Your task to perform on an android device: clear history in the chrome app Image 0: 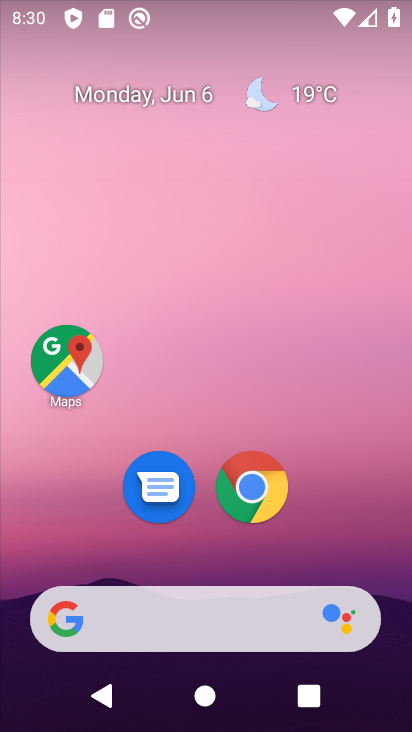
Step 0: click (248, 485)
Your task to perform on an android device: clear history in the chrome app Image 1: 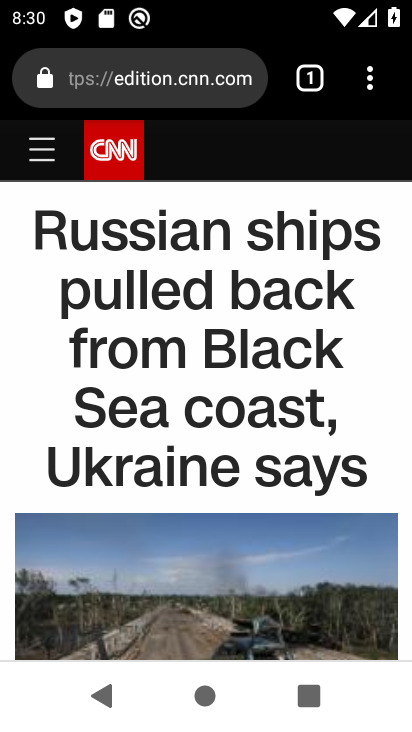
Step 1: click (365, 75)
Your task to perform on an android device: clear history in the chrome app Image 2: 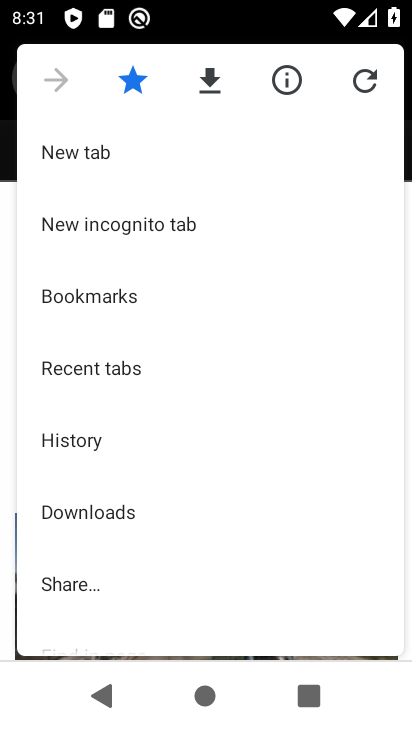
Step 2: click (97, 439)
Your task to perform on an android device: clear history in the chrome app Image 3: 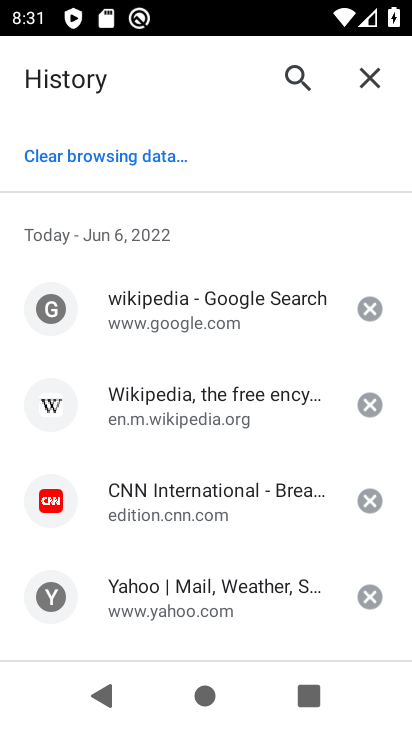
Step 3: click (111, 142)
Your task to perform on an android device: clear history in the chrome app Image 4: 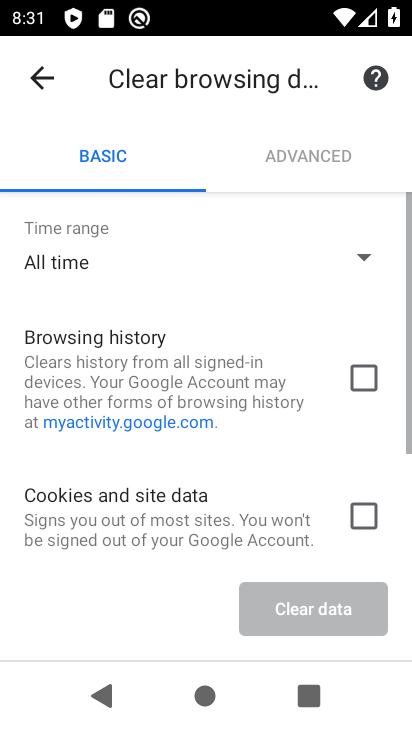
Step 4: click (358, 373)
Your task to perform on an android device: clear history in the chrome app Image 5: 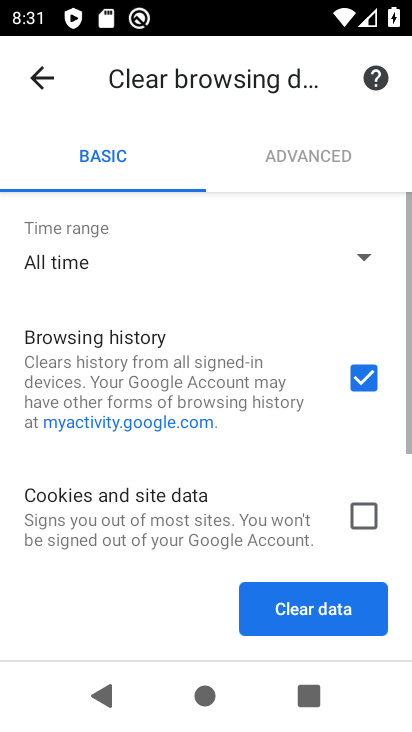
Step 5: click (363, 512)
Your task to perform on an android device: clear history in the chrome app Image 6: 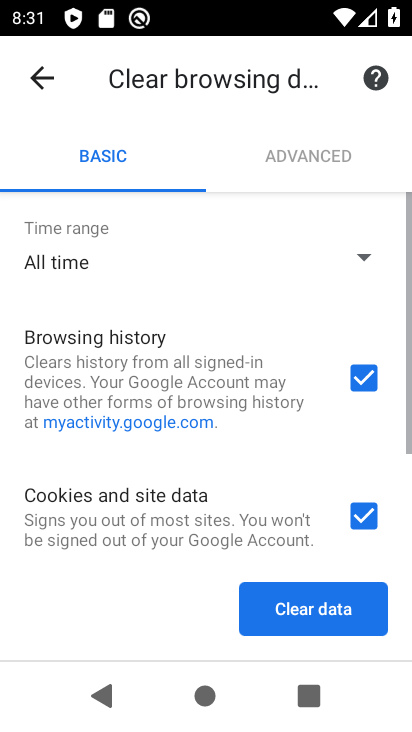
Step 6: drag from (287, 518) to (297, 145)
Your task to perform on an android device: clear history in the chrome app Image 7: 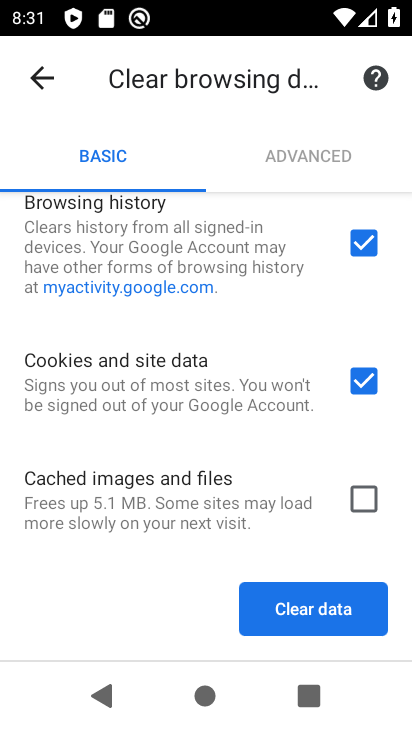
Step 7: click (364, 497)
Your task to perform on an android device: clear history in the chrome app Image 8: 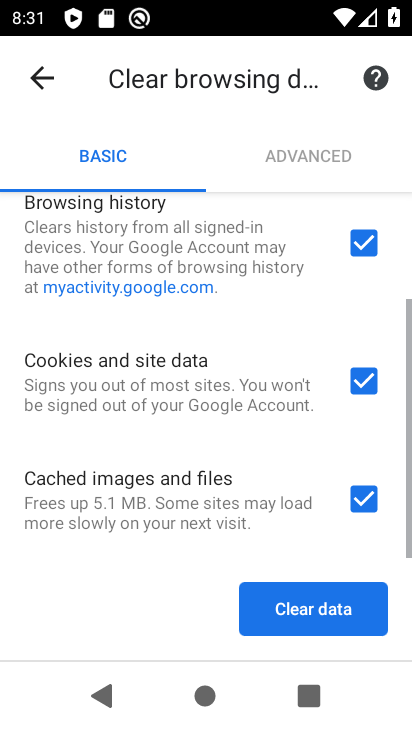
Step 8: click (327, 606)
Your task to perform on an android device: clear history in the chrome app Image 9: 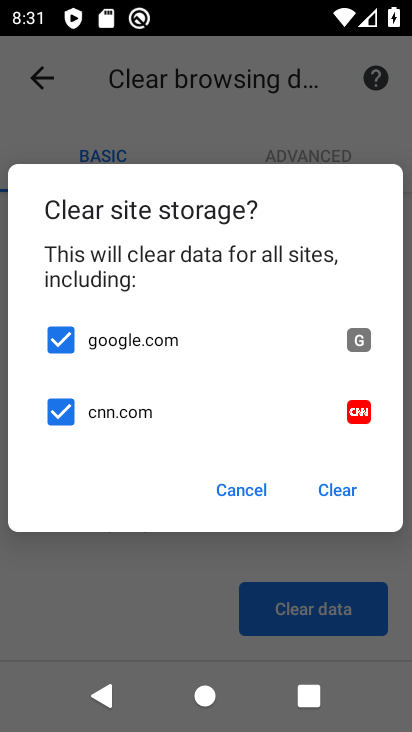
Step 9: click (337, 489)
Your task to perform on an android device: clear history in the chrome app Image 10: 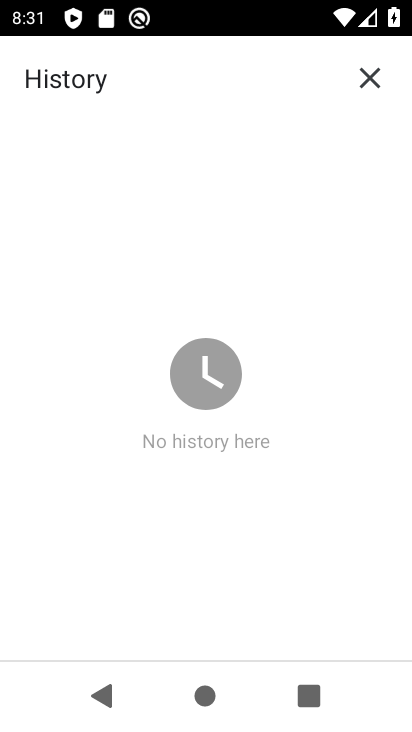
Step 10: task complete